Your task to perform on an android device: toggle location history Image 0: 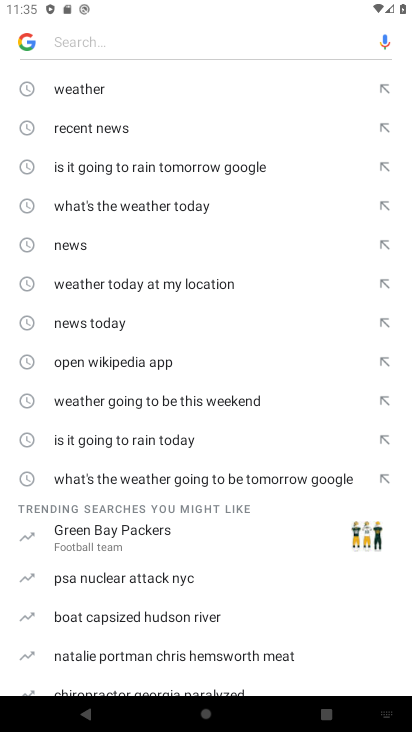
Step 0: press home button
Your task to perform on an android device: toggle location history Image 1: 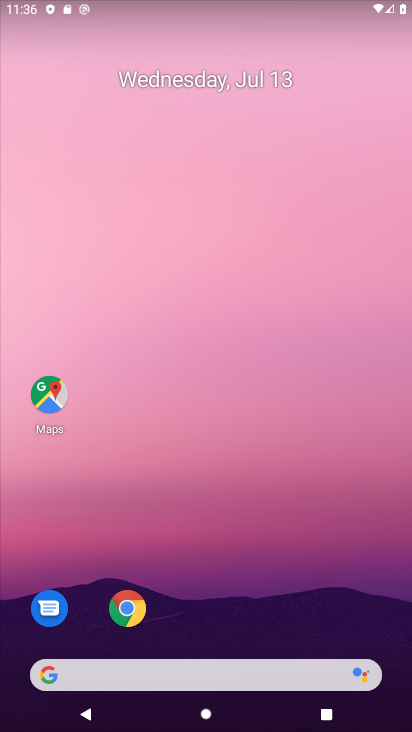
Step 1: drag from (280, 688) to (295, 3)
Your task to perform on an android device: toggle location history Image 2: 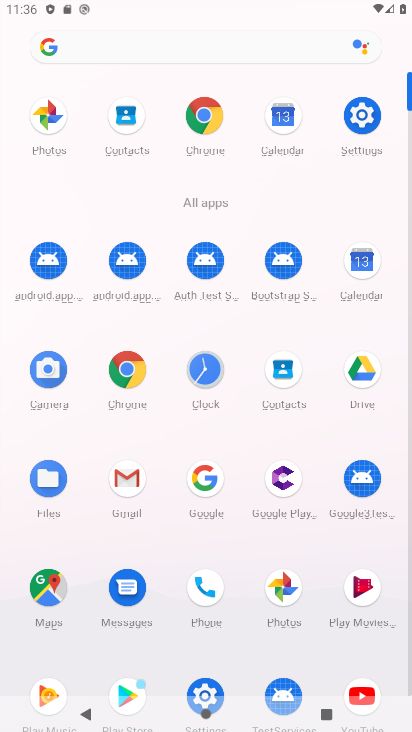
Step 2: click (365, 116)
Your task to perform on an android device: toggle location history Image 3: 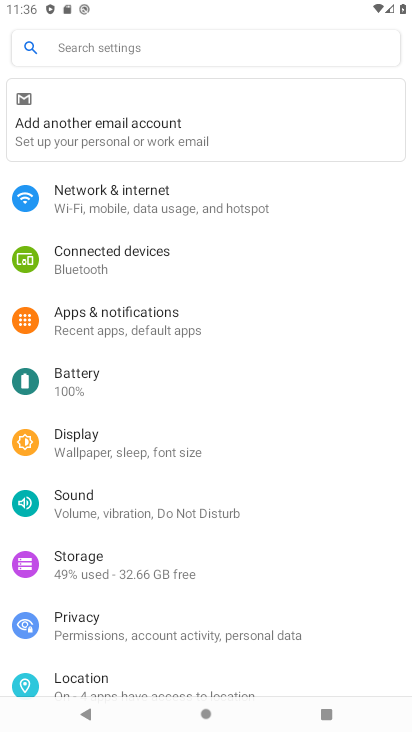
Step 3: click (100, 678)
Your task to perform on an android device: toggle location history Image 4: 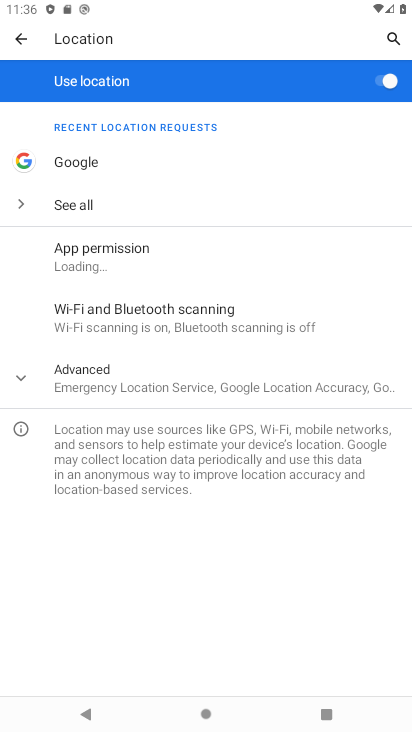
Step 4: click (105, 386)
Your task to perform on an android device: toggle location history Image 5: 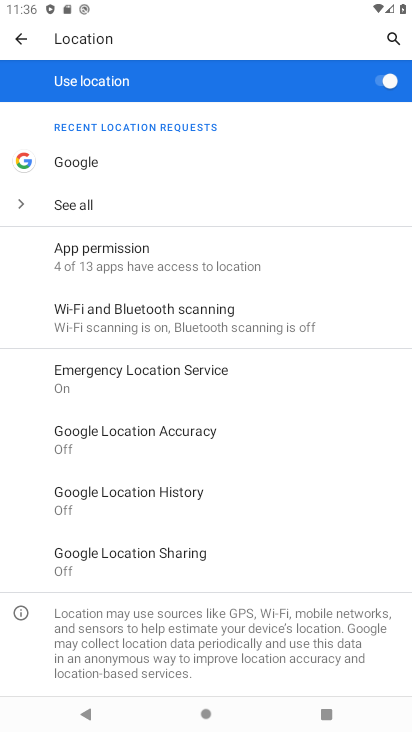
Step 5: click (158, 494)
Your task to perform on an android device: toggle location history Image 6: 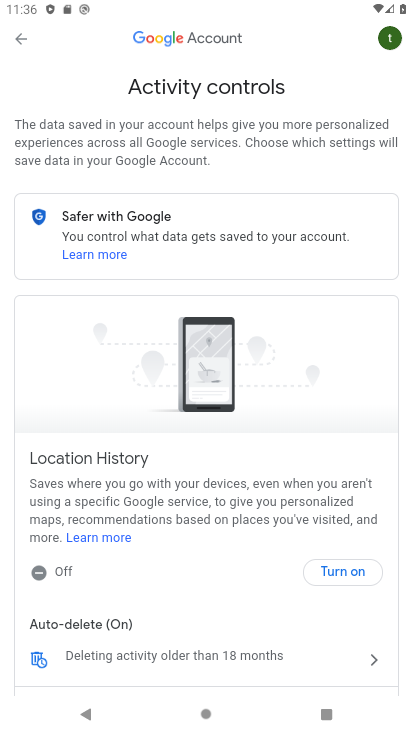
Step 6: click (355, 579)
Your task to perform on an android device: toggle location history Image 7: 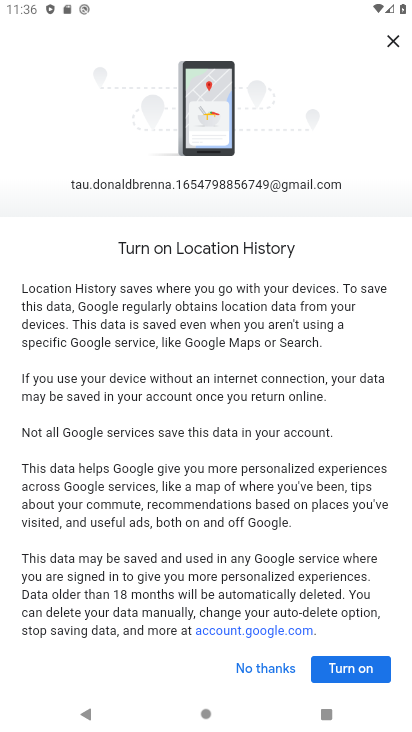
Step 7: click (353, 663)
Your task to perform on an android device: toggle location history Image 8: 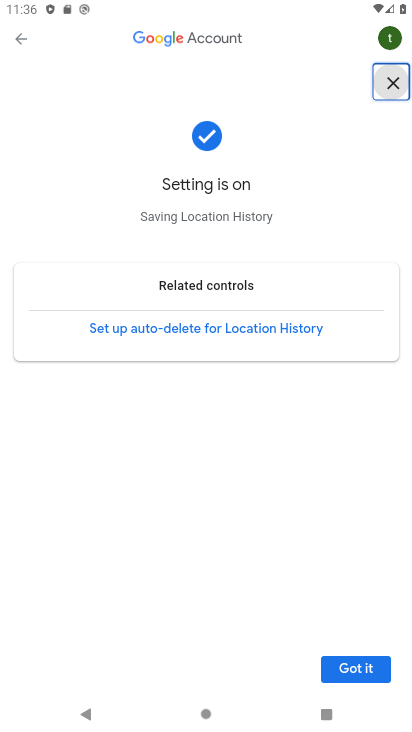
Step 8: click (366, 683)
Your task to perform on an android device: toggle location history Image 9: 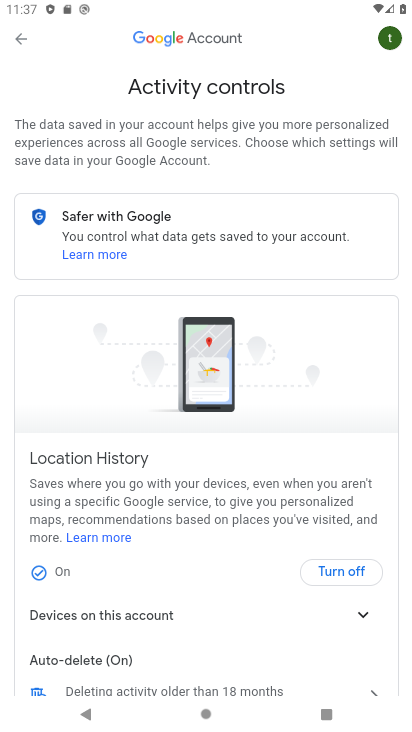
Step 9: task complete